Your task to perform on an android device: turn off picture-in-picture Image 0: 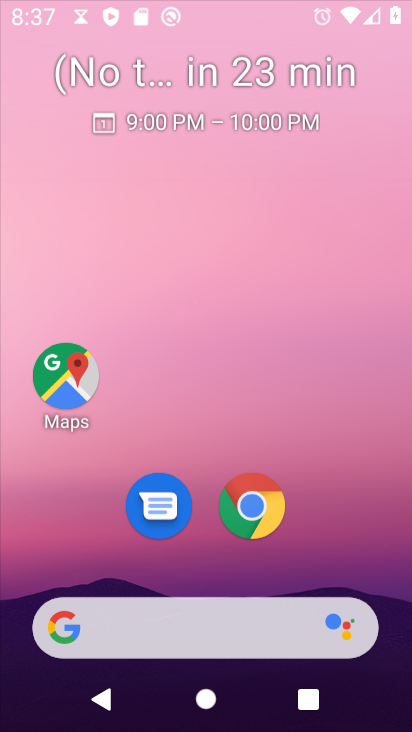
Step 0: drag from (341, 299) to (313, 212)
Your task to perform on an android device: turn off picture-in-picture Image 1: 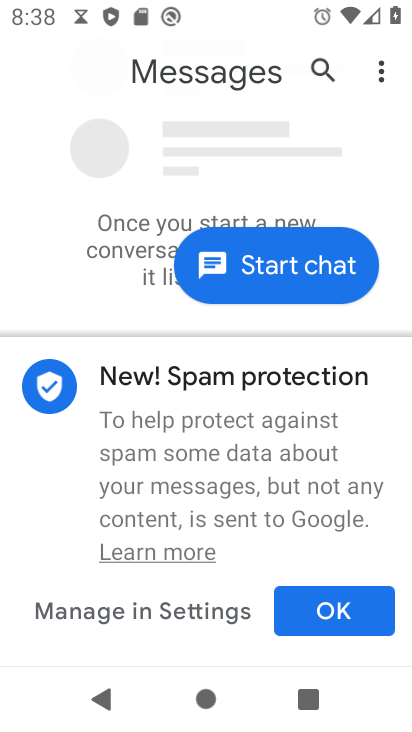
Step 1: press home button
Your task to perform on an android device: turn off picture-in-picture Image 2: 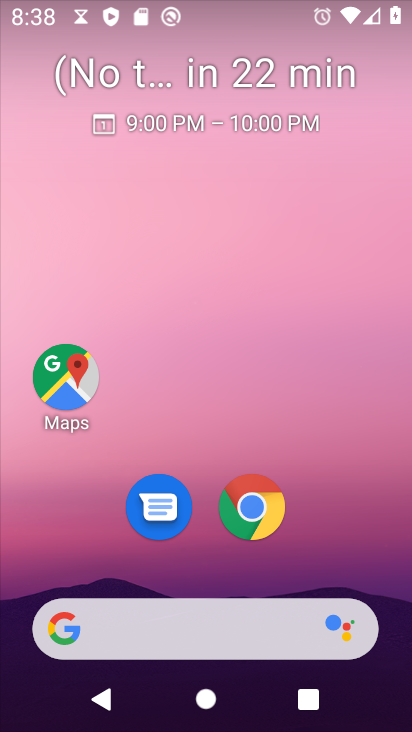
Step 2: click (261, 519)
Your task to perform on an android device: turn off picture-in-picture Image 3: 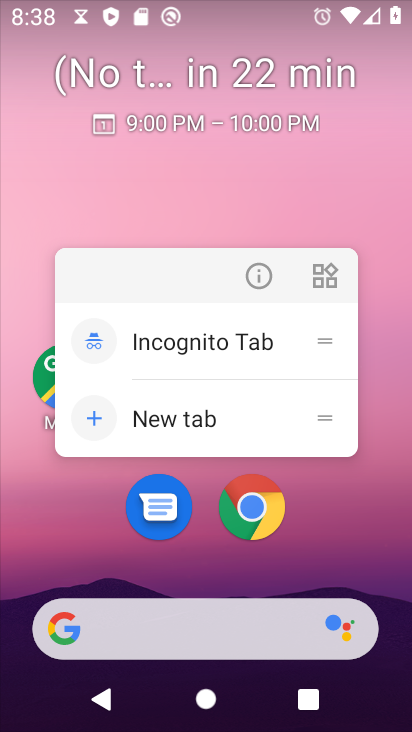
Step 3: click (268, 288)
Your task to perform on an android device: turn off picture-in-picture Image 4: 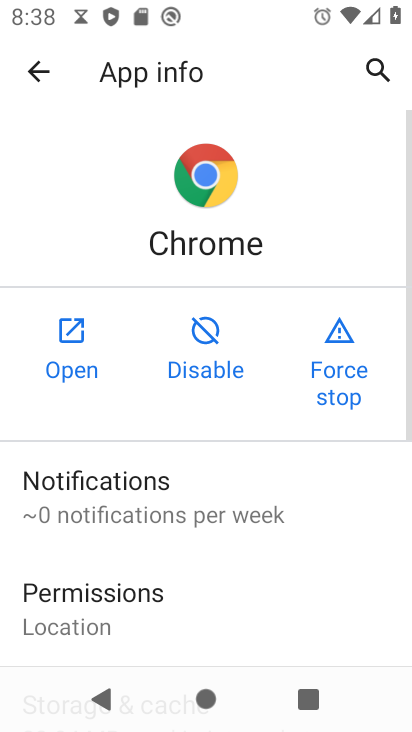
Step 4: drag from (266, 610) to (180, 220)
Your task to perform on an android device: turn off picture-in-picture Image 5: 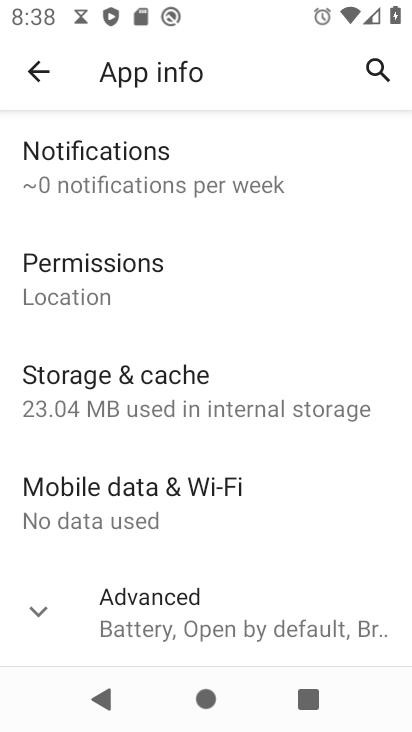
Step 5: click (231, 590)
Your task to perform on an android device: turn off picture-in-picture Image 6: 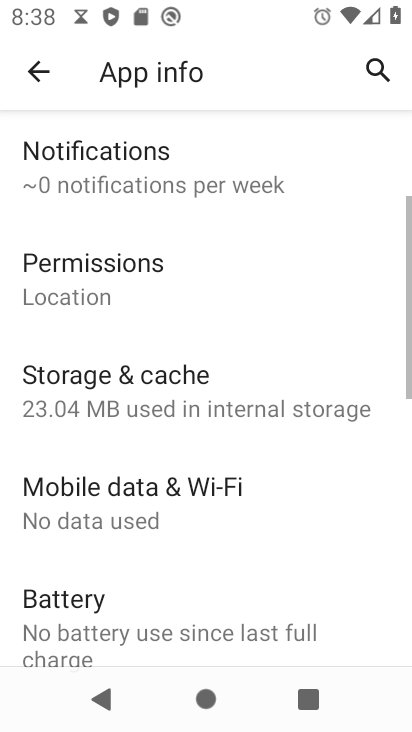
Step 6: drag from (231, 590) to (180, 169)
Your task to perform on an android device: turn off picture-in-picture Image 7: 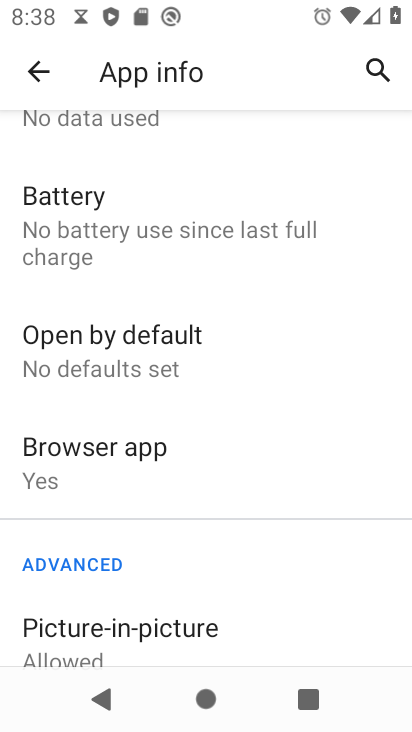
Step 7: click (218, 616)
Your task to perform on an android device: turn off picture-in-picture Image 8: 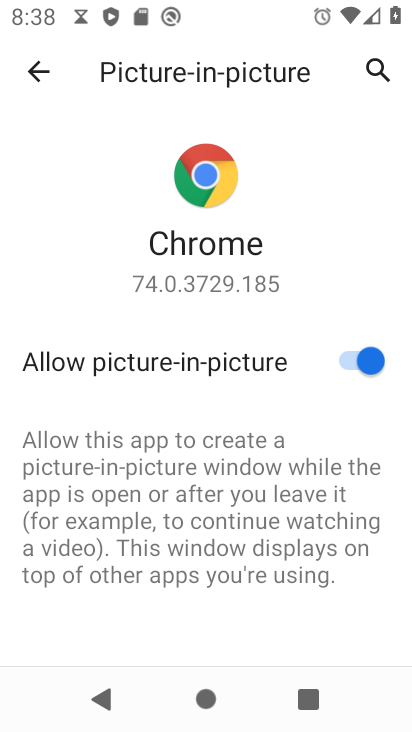
Step 8: click (363, 357)
Your task to perform on an android device: turn off picture-in-picture Image 9: 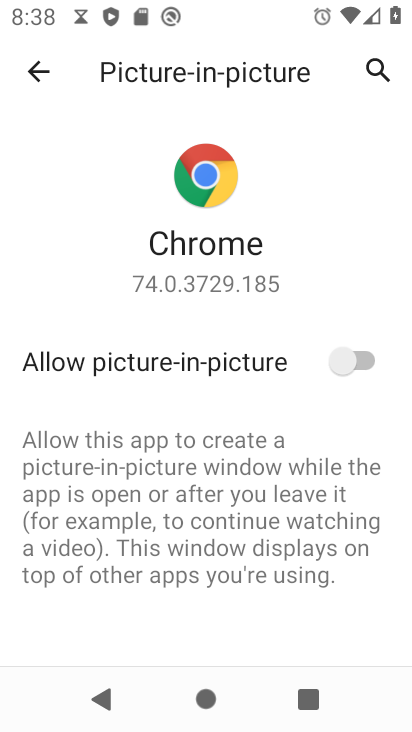
Step 9: task complete